Your task to perform on an android device: What's on my calendar tomorrow? Image 0: 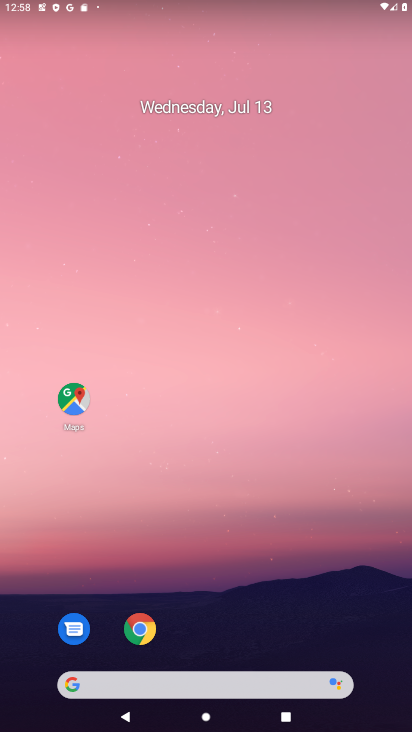
Step 0: drag from (233, 581) to (237, 235)
Your task to perform on an android device: What's on my calendar tomorrow? Image 1: 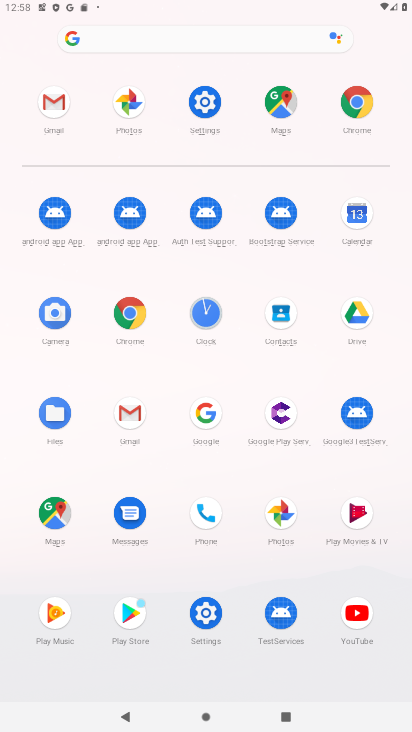
Step 1: click (353, 212)
Your task to perform on an android device: What's on my calendar tomorrow? Image 2: 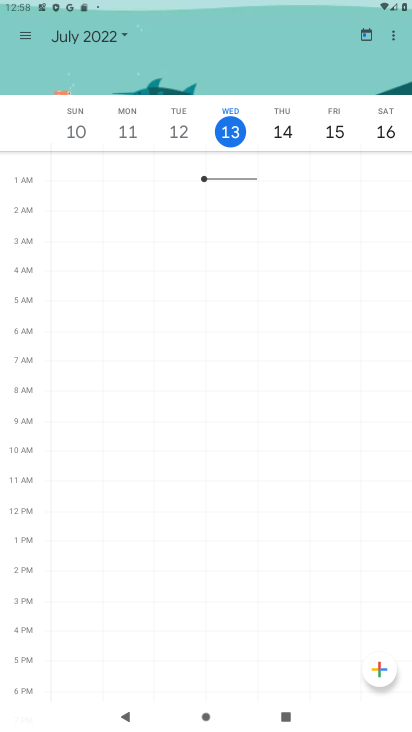
Step 2: click (263, 127)
Your task to perform on an android device: What's on my calendar tomorrow? Image 3: 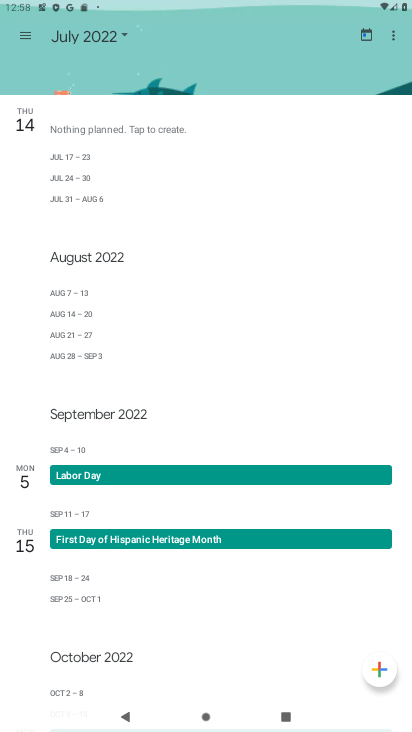
Step 3: task complete